Your task to perform on an android device: Show me popular videos on Youtube Image 0: 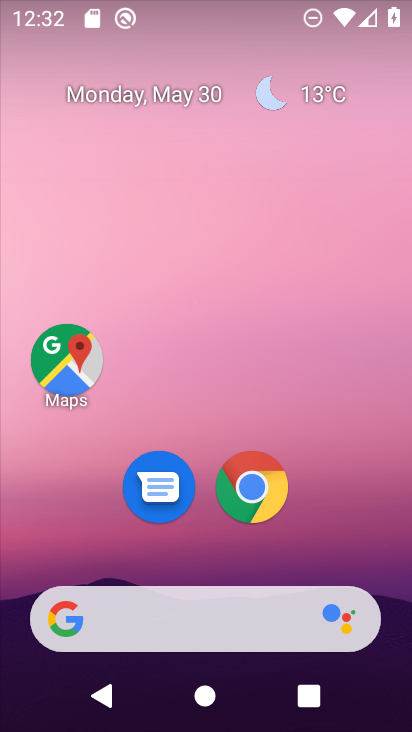
Step 0: drag from (382, 672) to (393, 158)
Your task to perform on an android device: Show me popular videos on Youtube Image 1: 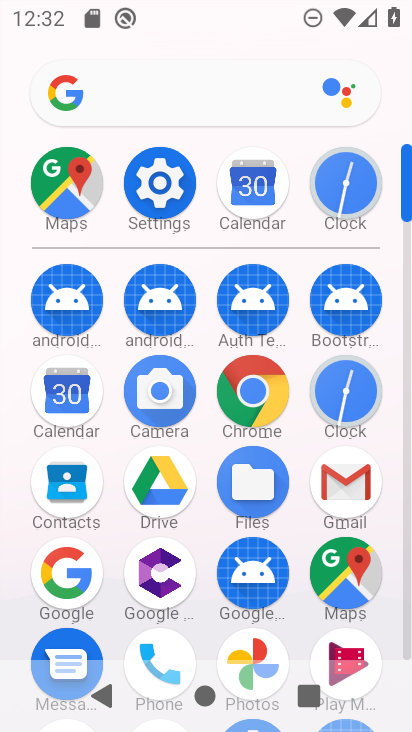
Step 1: drag from (293, 569) to (305, 270)
Your task to perform on an android device: Show me popular videos on Youtube Image 2: 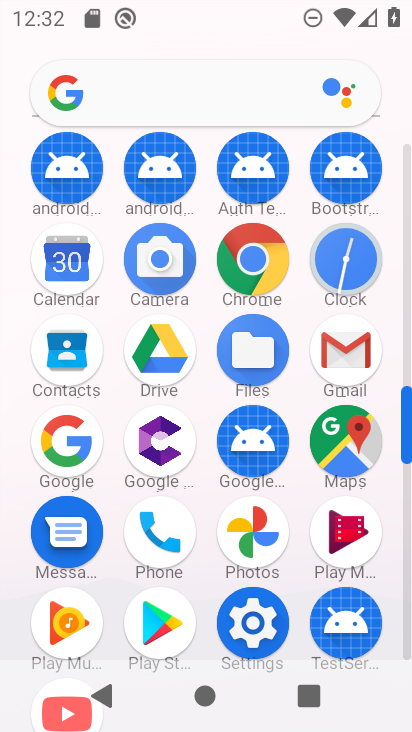
Step 2: drag from (190, 586) to (215, 247)
Your task to perform on an android device: Show me popular videos on Youtube Image 3: 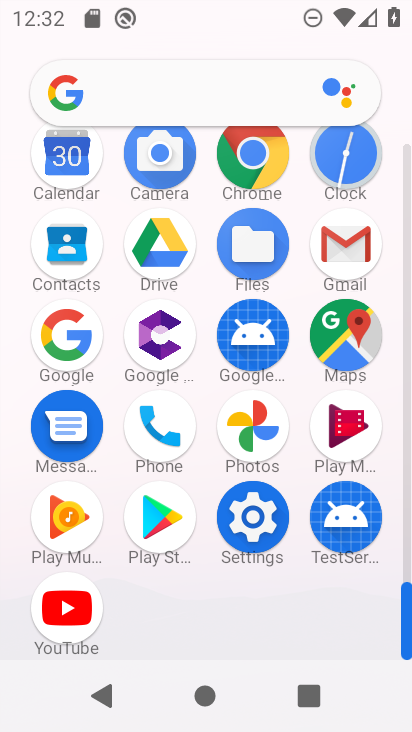
Step 3: click (62, 615)
Your task to perform on an android device: Show me popular videos on Youtube Image 4: 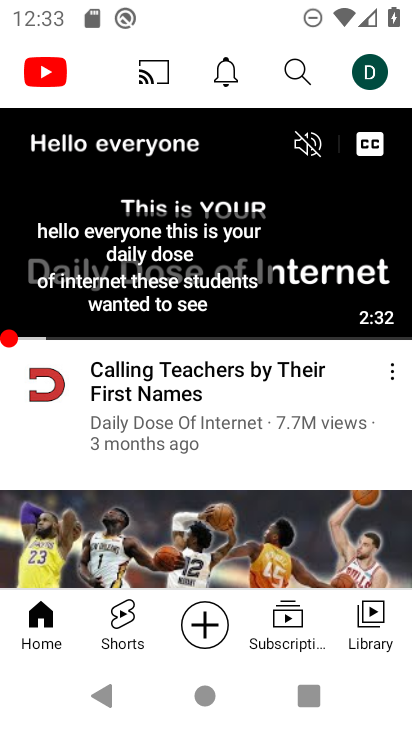
Step 4: click (363, 70)
Your task to perform on an android device: Show me popular videos on Youtube Image 5: 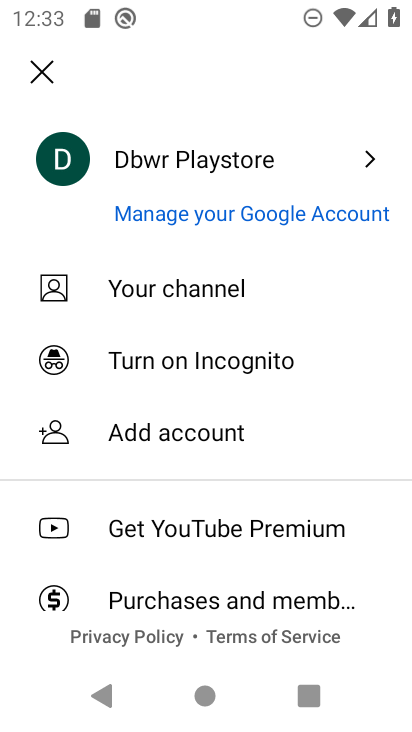
Step 5: click (29, 70)
Your task to perform on an android device: Show me popular videos on Youtube Image 6: 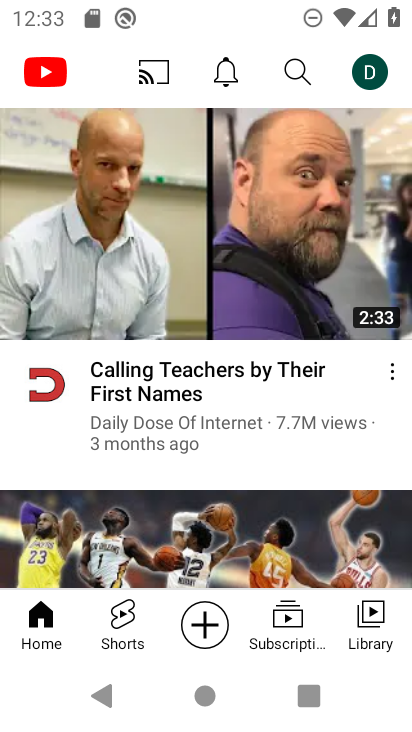
Step 6: click (365, 619)
Your task to perform on an android device: Show me popular videos on Youtube Image 7: 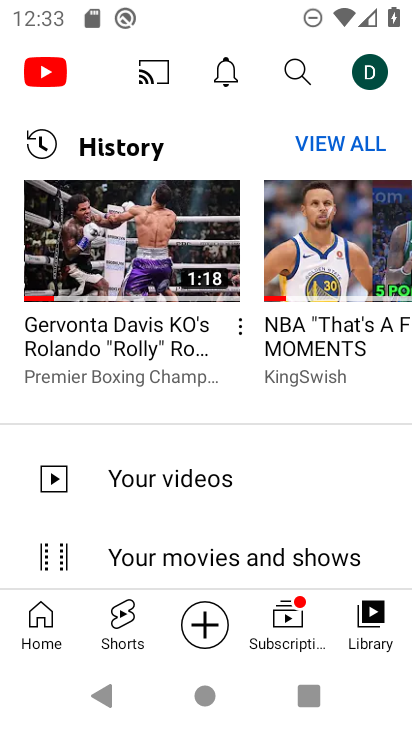
Step 7: click (136, 269)
Your task to perform on an android device: Show me popular videos on Youtube Image 8: 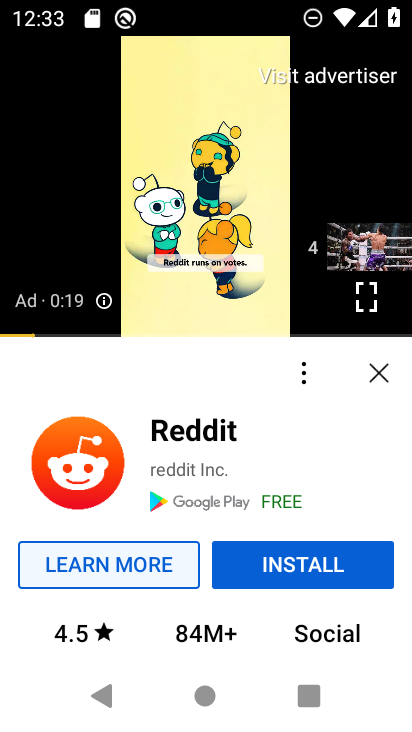
Step 8: press back button
Your task to perform on an android device: Show me popular videos on Youtube Image 9: 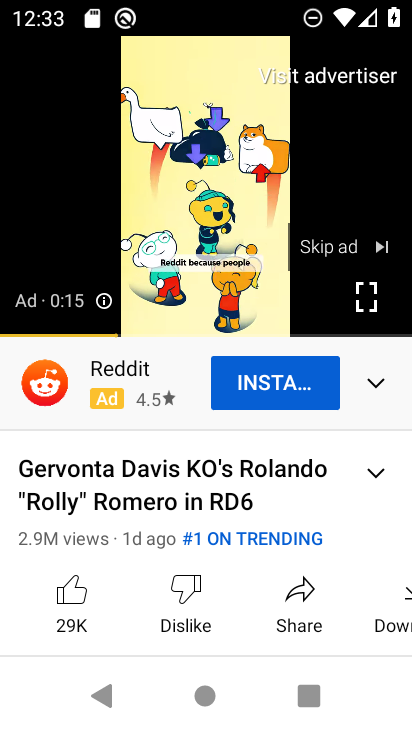
Step 9: press back button
Your task to perform on an android device: Show me popular videos on Youtube Image 10: 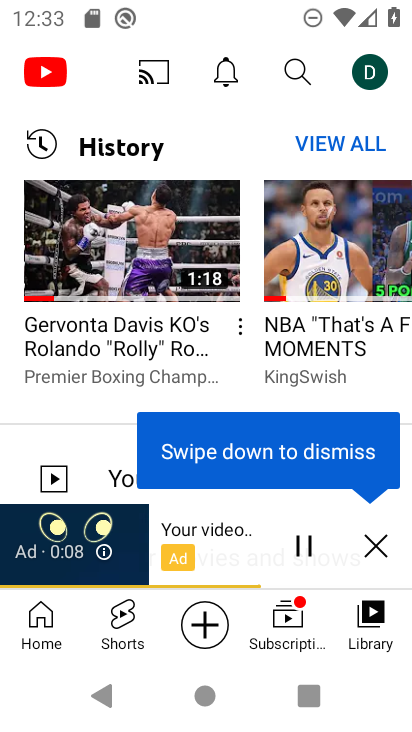
Step 10: click (296, 60)
Your task to perform on an android device: Show me popular videos on Youtube Image 11: 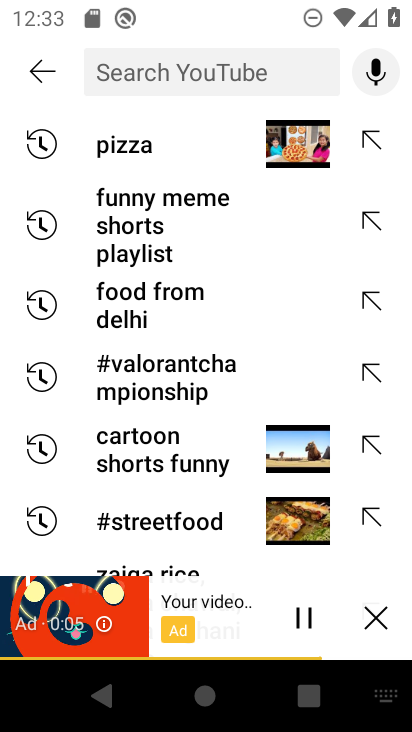
Step 11: type "popular videos"
Your task to perform on an android device: Show me popular videos on Youtube Image 12: 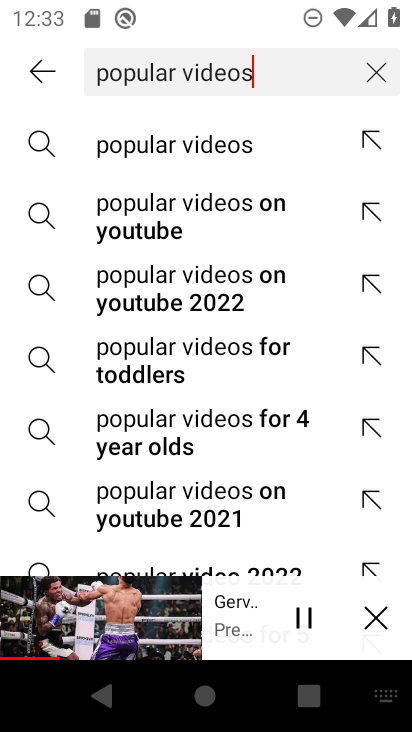
Step 12: click (184, 140)
Your task to perform on an android device: Show me popular videos on Youtube Image 13: 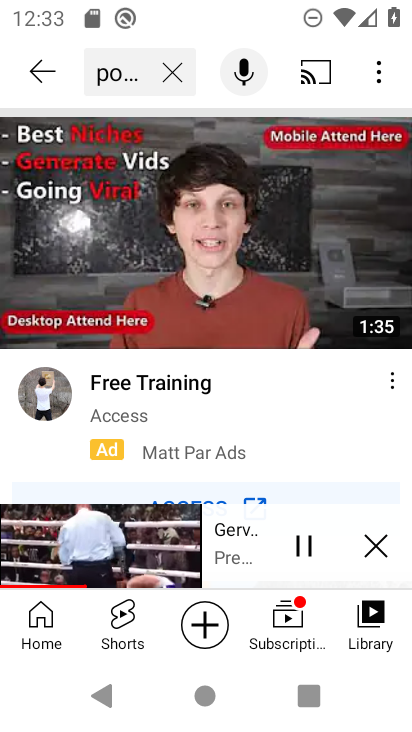
Step 13: click (371, 551)
Your task to perform on an android device: Show me popular videos on Youtube Image 14: 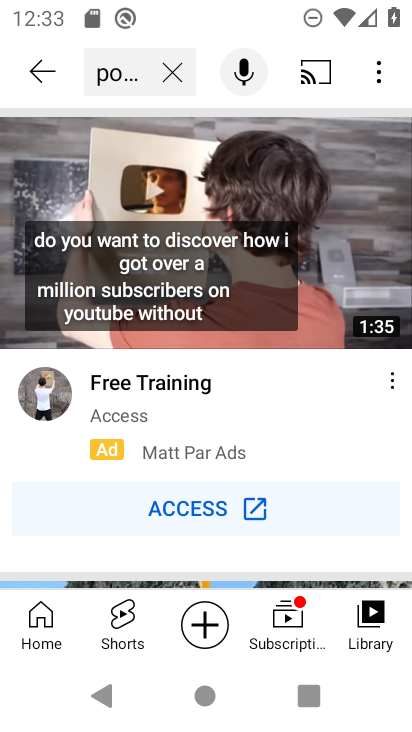
Step 14: drag from (325, 500) to (306, 209)
Your task to perform on an android device: Show me popular videos on Youtube Image 15: 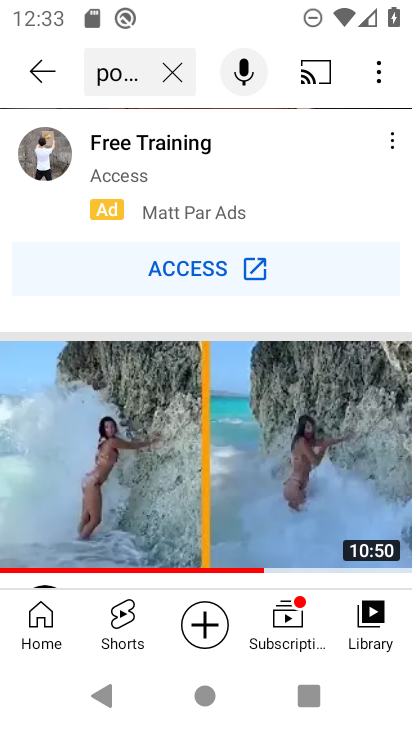
Step 15: drag from (232, 490) to (229, 210)
Your task to perform on an android device: Show me popular videos on Youtube Image 16: 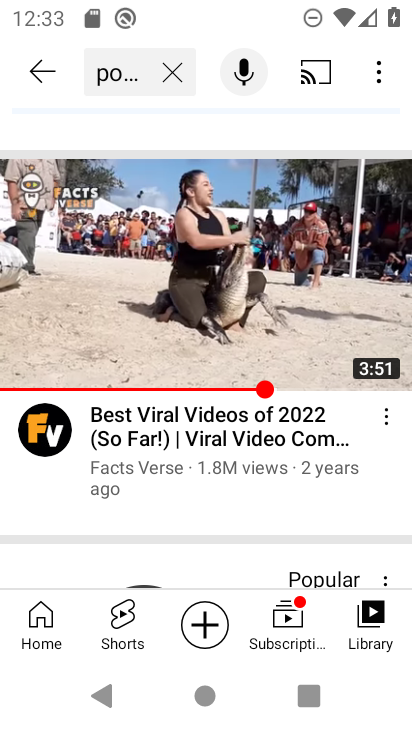
Step 16: click (182, 514)
Your task to perform on an android device: Show me popular videos on Youtube Image 17: 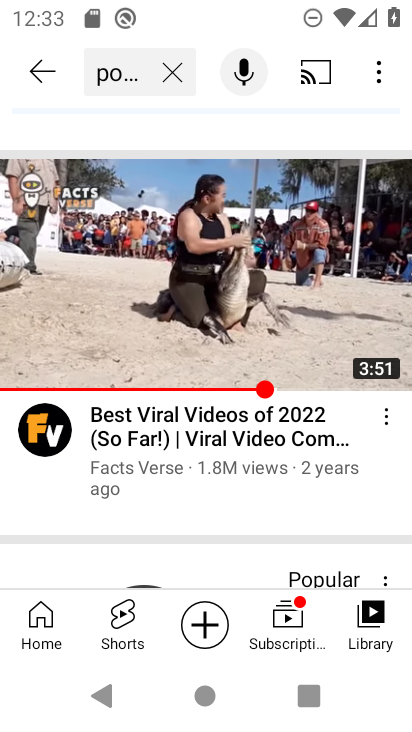
Step 17: task complete